Your task to perform on an android device: Search for the best movies of 2019  Image 0: 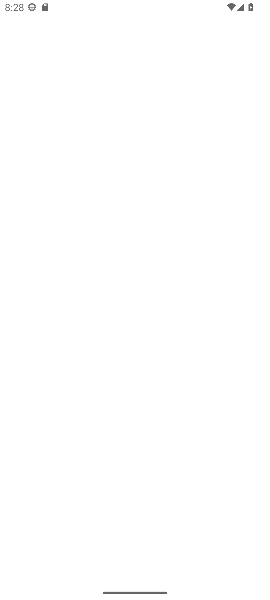
Step 0: press home button
Your task to perform on an android device: Search for the best movies of 2019  Image 1: 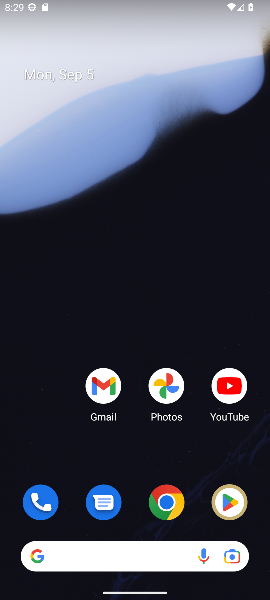
Step 1: drag from (190, 392) to (116, 2)
Your task to perform on an android device: Search for the best movies of 2019  Image 2: 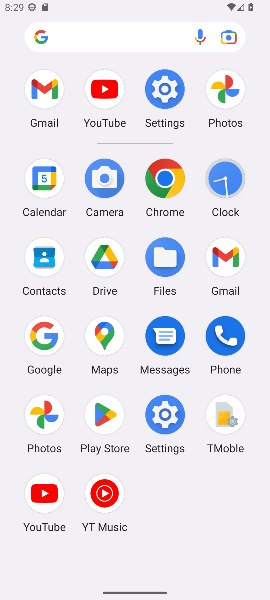
Step 2: click (29, 334)
Your task to perform on an android device: Search for the best movies of 2019  Image 3: 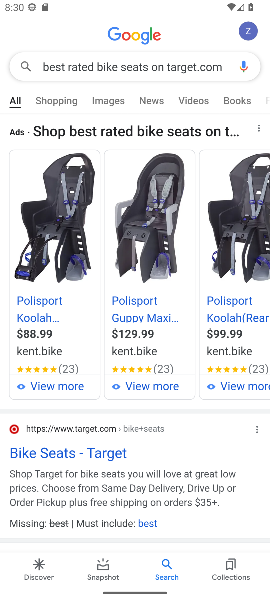
Step 3: press back button
Your task to perform on an android device: Search for the best movies of 2019  Image 4: 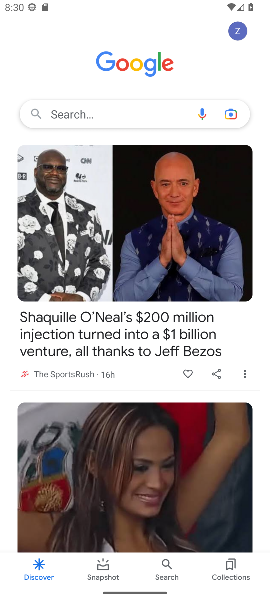
Step 4: click (100, 107)
Your task to perform on an android device: Search for the best movies of 2019  Image 5: 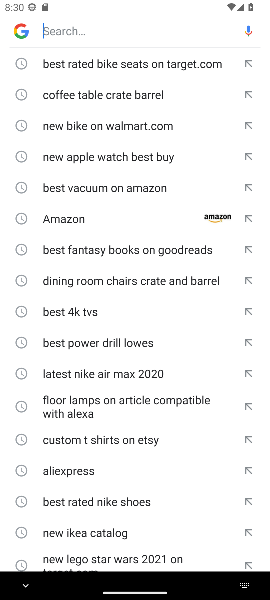
Step 5: type "best movies of 2019"
Your task to perform on an android device: Search for the best movies of 2019  Image 6: 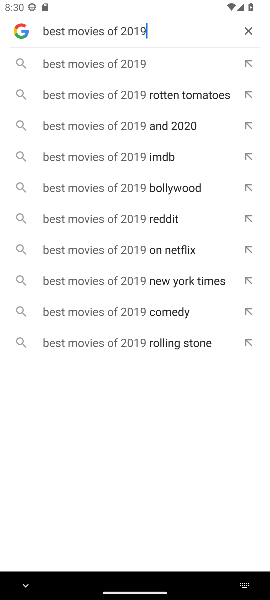
Step 6: click (116, 71)
Your task to perform on an android device: Search for the best movies of 2019  Image 7: 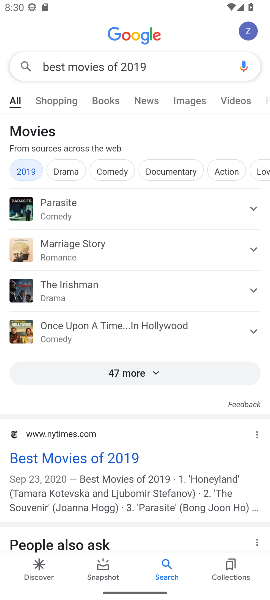
Step 7: task complete